Your task to perform on an android device: turn off notifications in google photos Image 0: 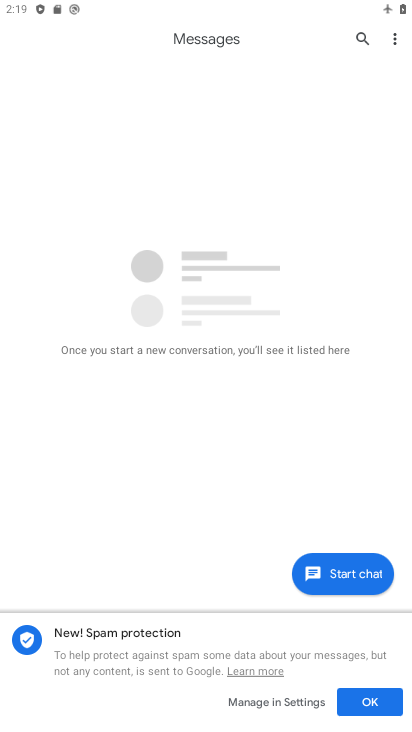
Step 0: press home button
Your task to perform on an android device: turn off notifications in google photos Image 1: 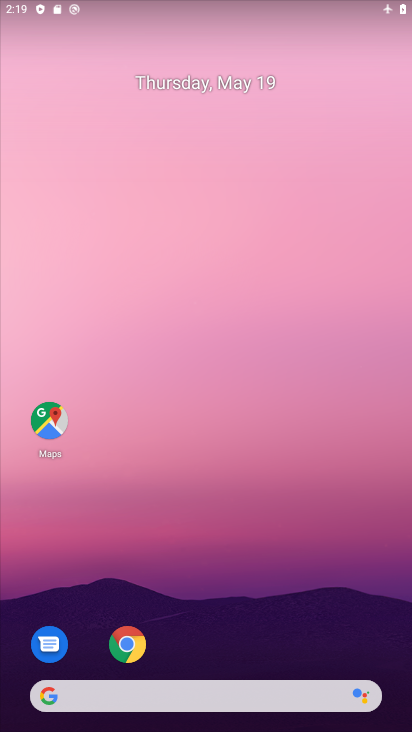
Step 1: drag from (250, 630) to (314, 236)
Your task to perform on an android device: turn off notifications in google photos Image 2: 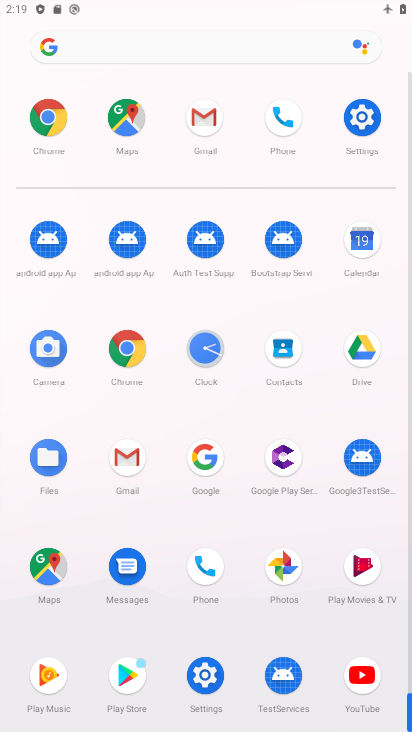
Step 2: click (276, 566)
Your task to perform on an android device: turn off notifications in google photos Image 3: 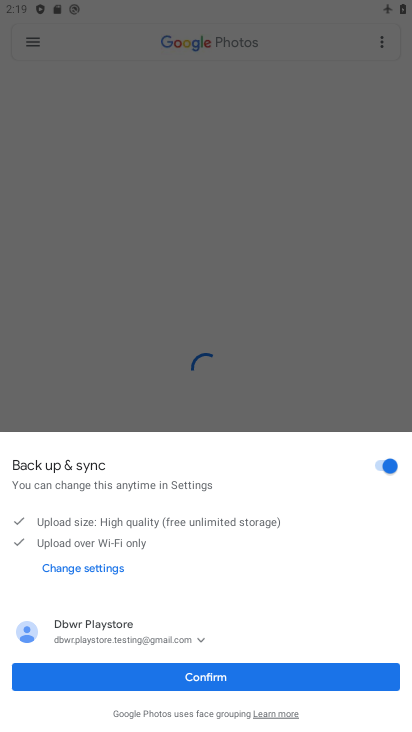
Step 3: click (213, 673)
Your task to perform on an android device: turn off notifications in google photos Image 4: 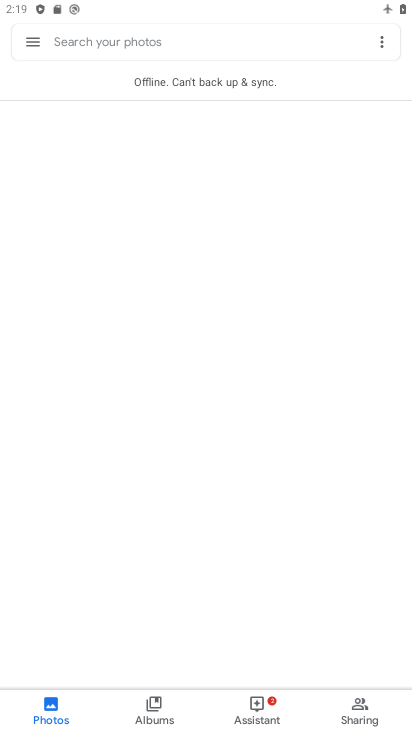
Step 4: click (22, 40)
Your task to perform on an android device: turn off notifications in google photos Image 5: 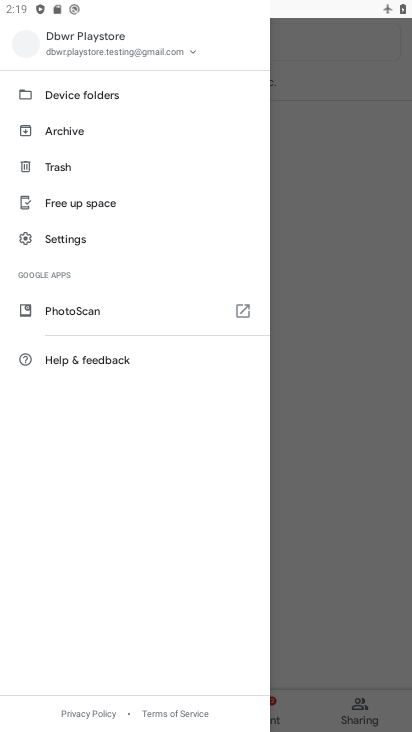
Step 5: click (72, 245)
Your task to perform on an android device: turn off notifications in google photos Image 6: 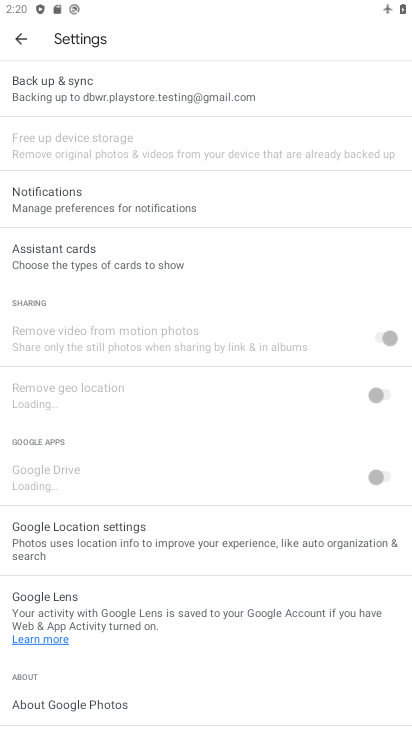
Step 6: task complete